Your task to perform on an android device: stop showing notifications on the lock screen Image 0: 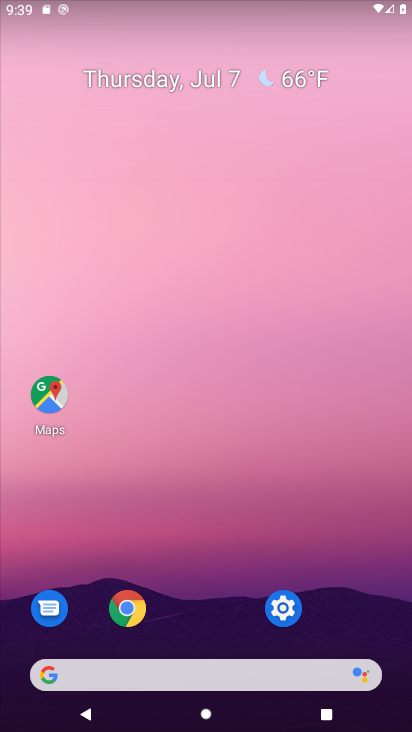
Step 0: click (277, 615)
Your task to perform on an android device: stop showing notifications on the lock screen Image 1: 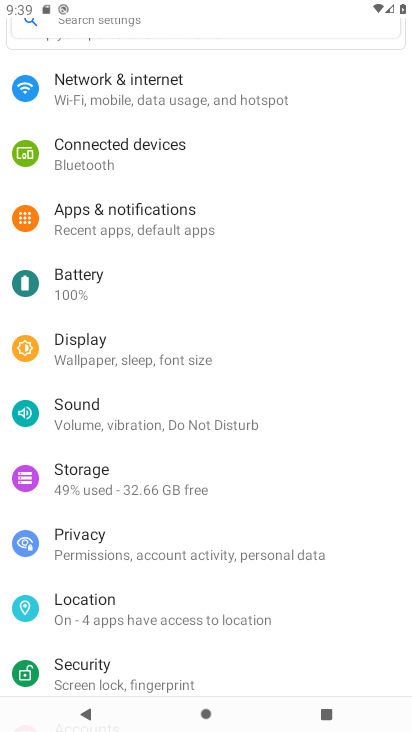
Step 1: click (123, 26)
Your task to perform on an android device: stop showing notifications on the lock screen Image 2: 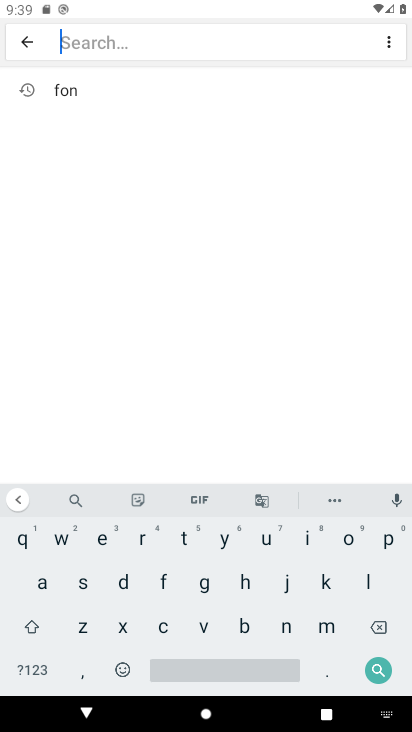
Step 2: click (285, 629)
Your task to perform on an android device: stop showing notifications on the lock screen Image 3: 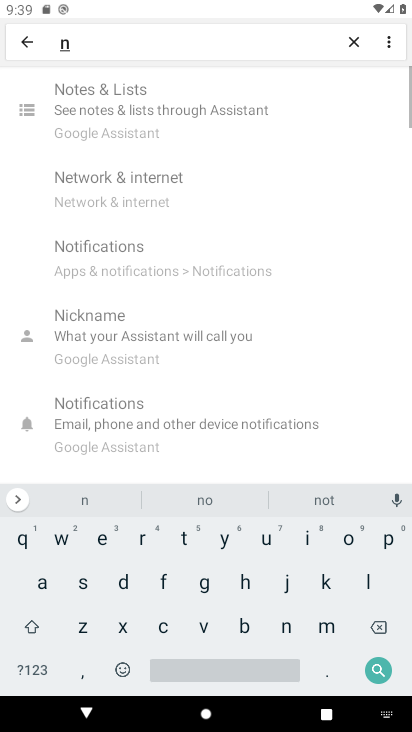
Step 3: click (350, 542)
Your task to perform on an android device: stop showing notifications on the lock screen Image 4: 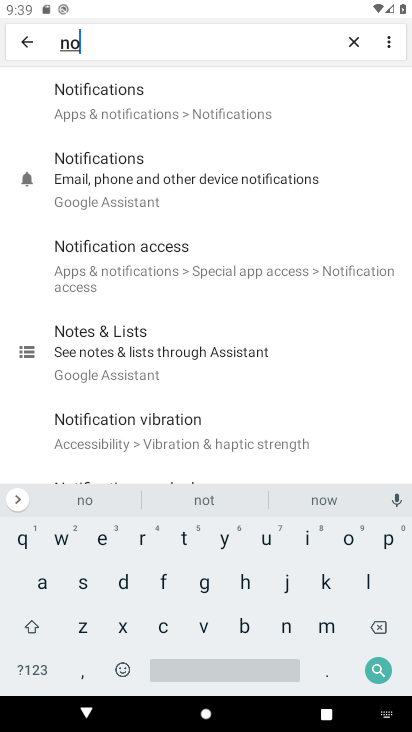
Step 4: click (110, 93)
Your task to perform on an android device: stop showing notifications on the lock screen Image 5: 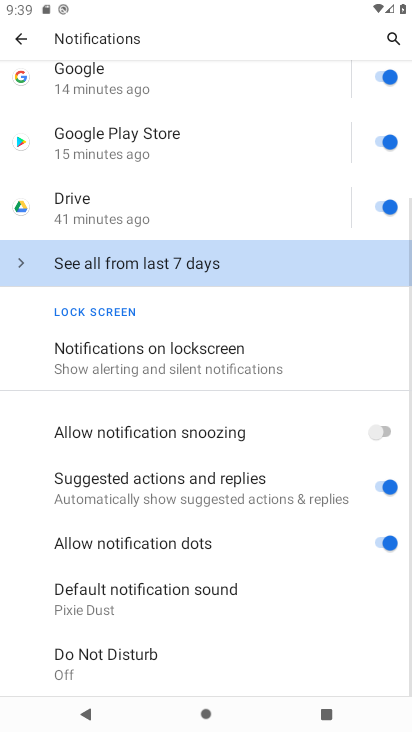
Step 5: click (116, 347)
Your task to perform on an android device: stop showing notifications on the lock screen Image 6: 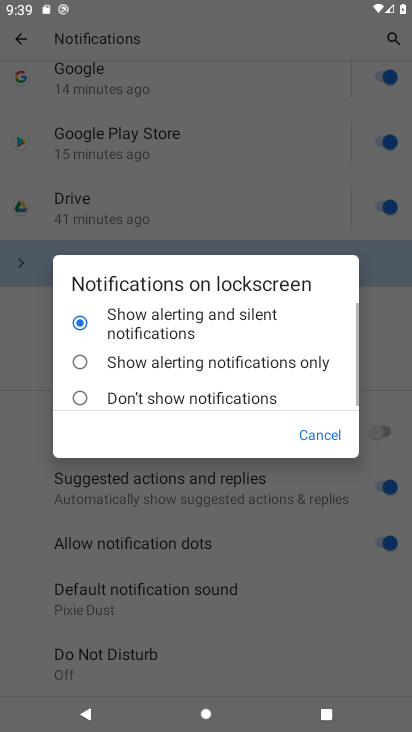
Step 6: click (142, 392)
Your task to perform on an android device: stop showing notifications on the lock screen Image 7: 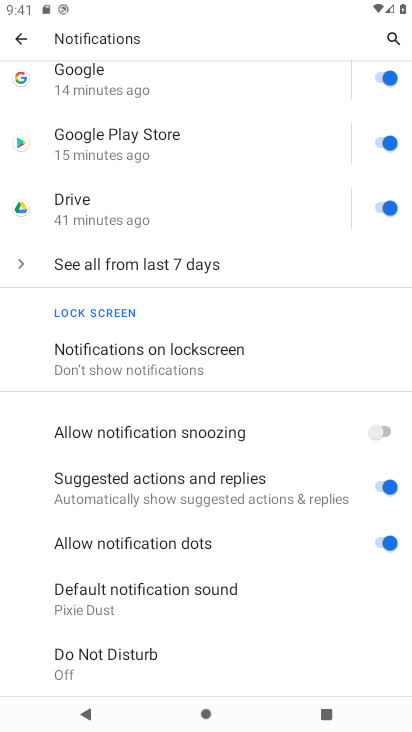
Step 7: task complete